Your task to perform on an android device: install app "Calculator" Image 0: 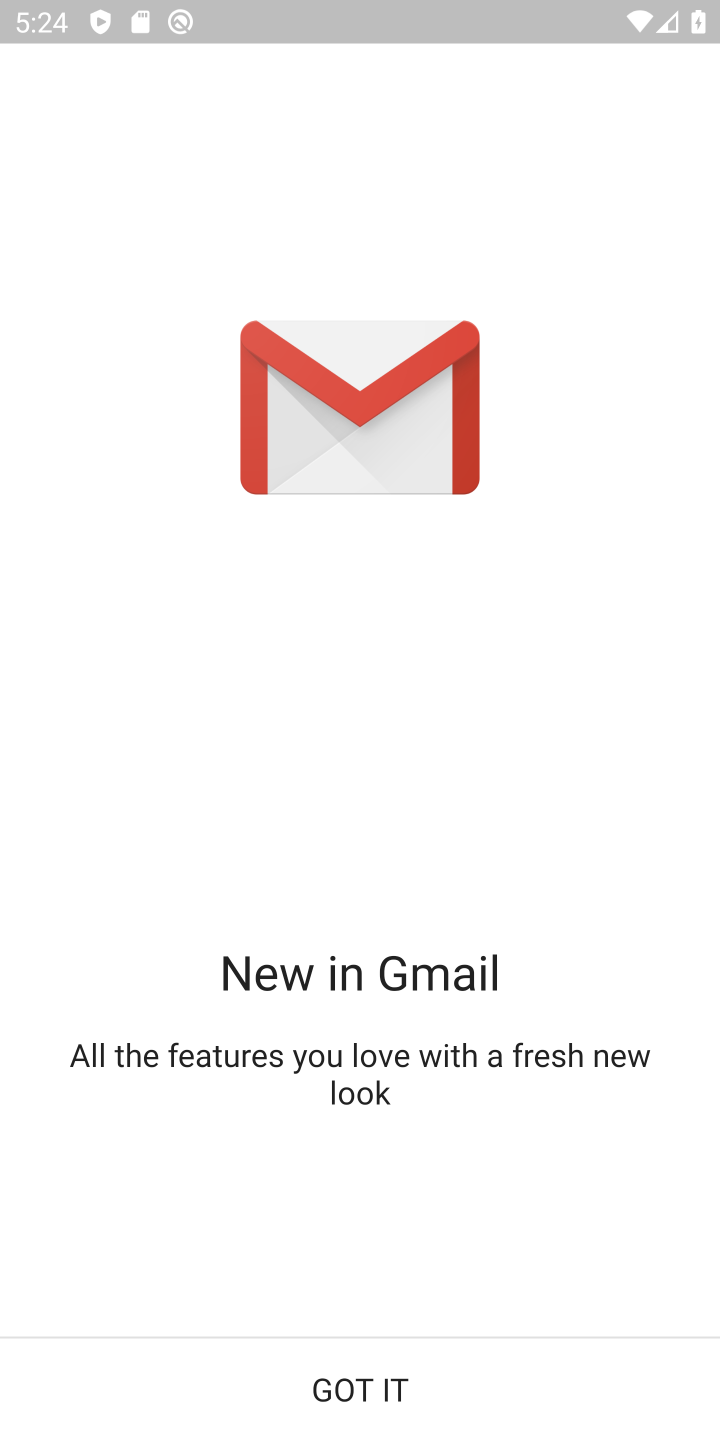
Step 0: press home button
Your task to perform on an android device: install app "Calculator" Image 1: 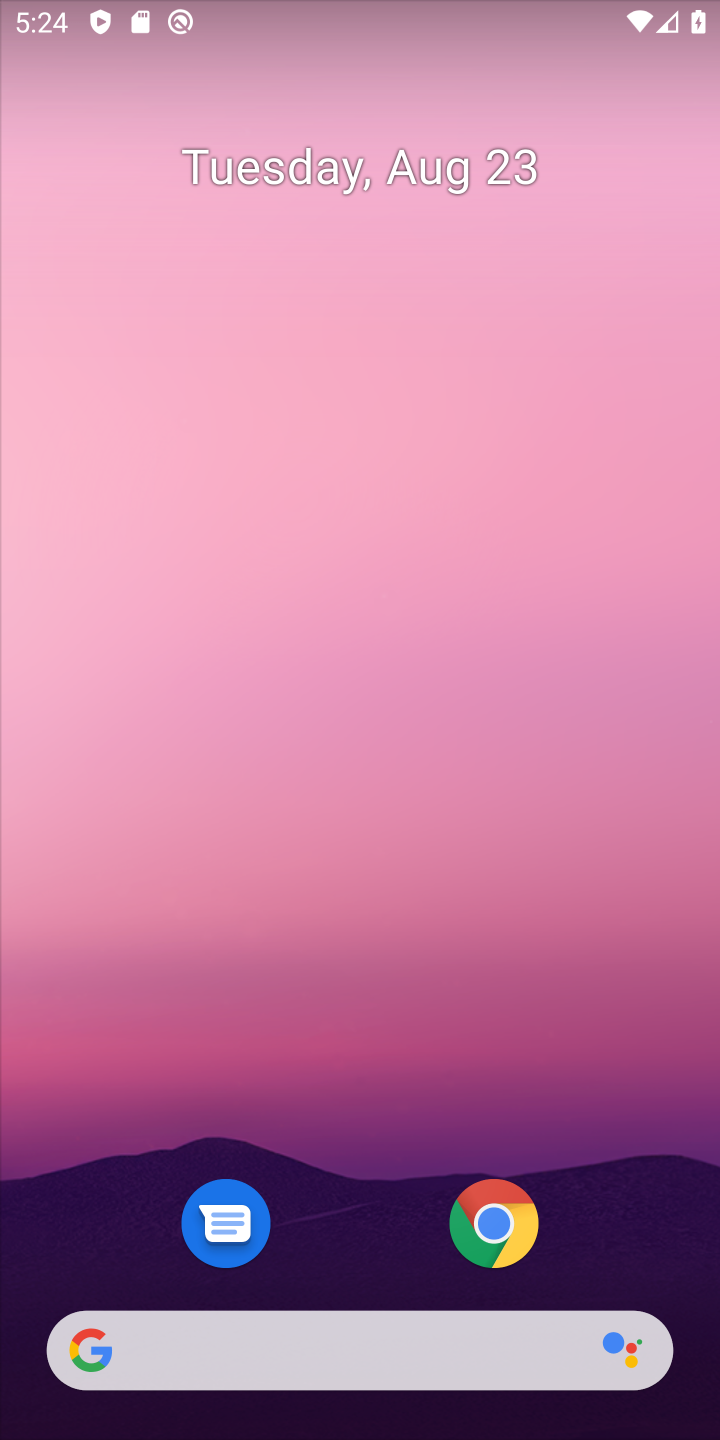
Step 1: drag from (392, 1346) to (443, 176)
Your task to perform on an android device: install app "Calculator" Image 2: 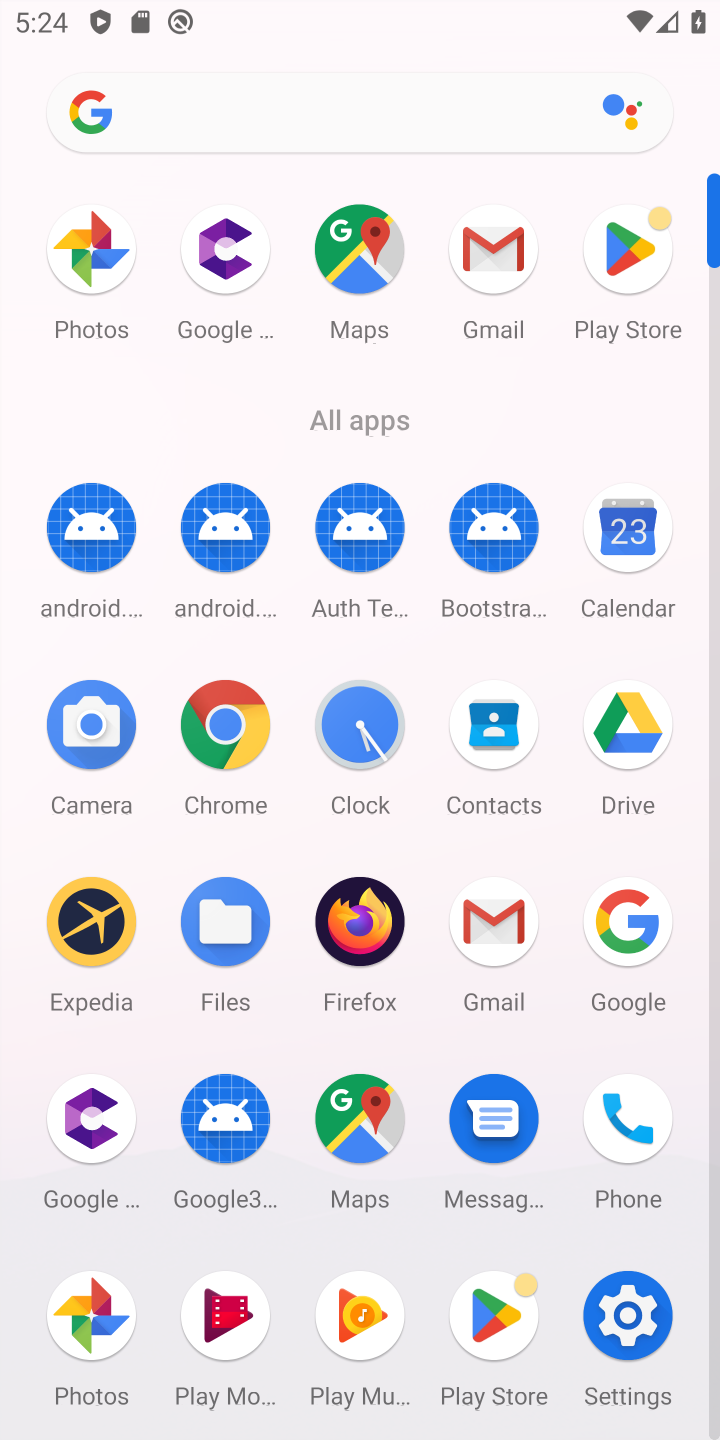
Step 2: click (587, 249)
Your task to perform on an android device: install app "Calculator" Image 3: 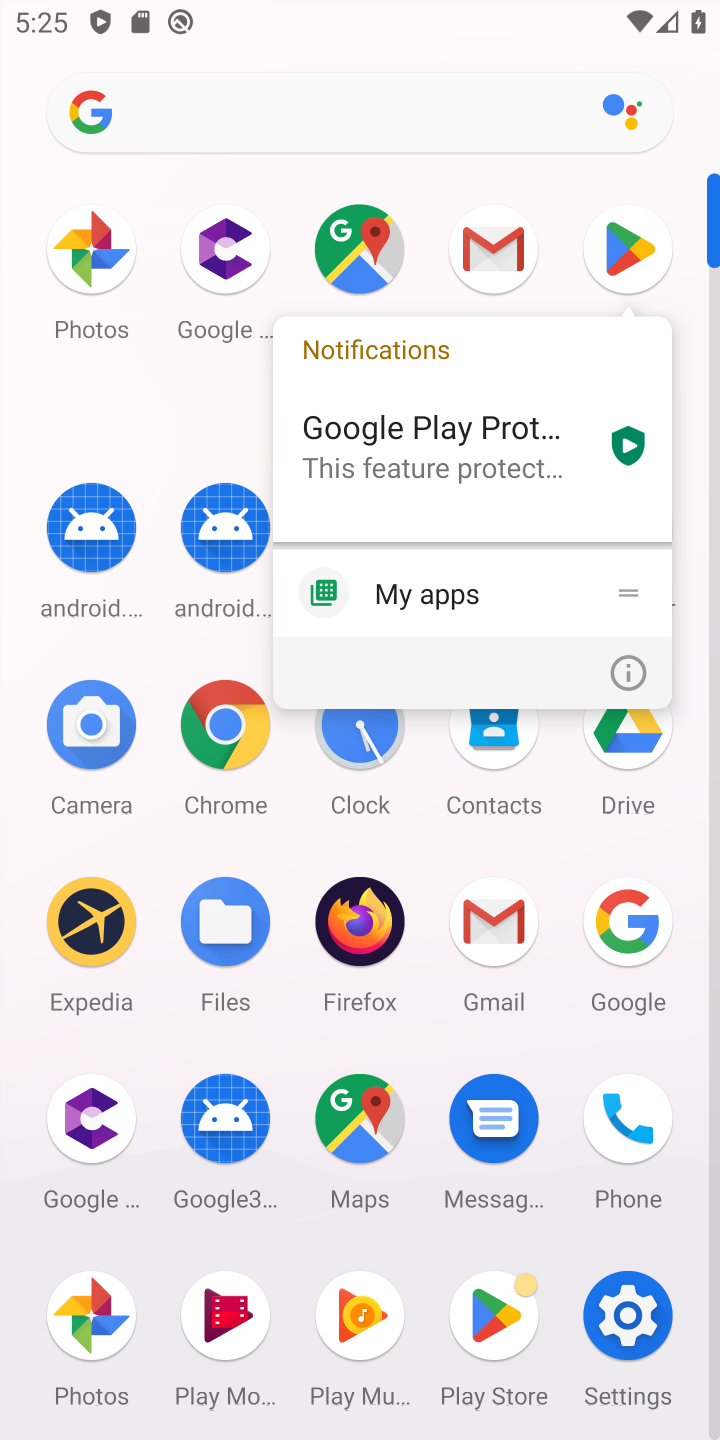
Step 3: click (603, 229)
Your task to perform on an android device: install app "Calculator" Image 4: 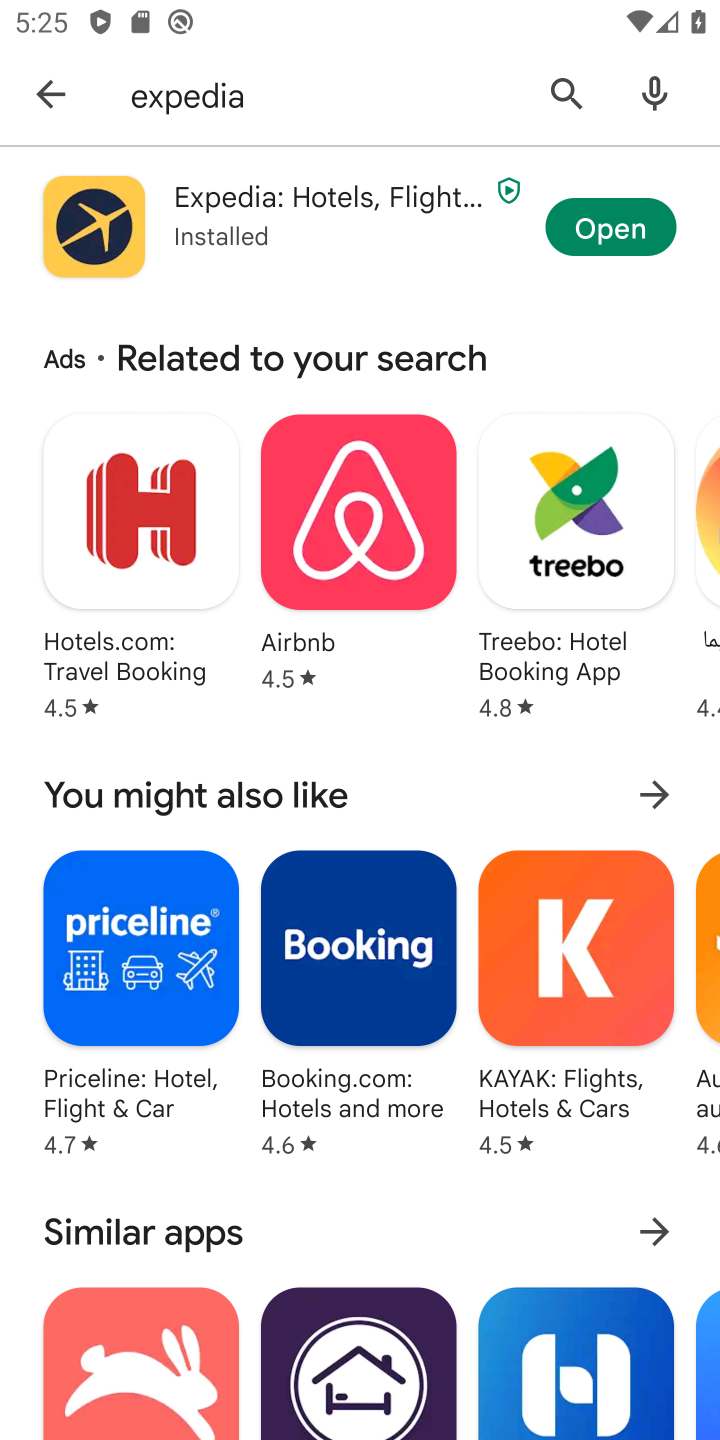
Step 4: click (579, 115)
Your task to perform on an android device: install app "Calculator" Image 5: 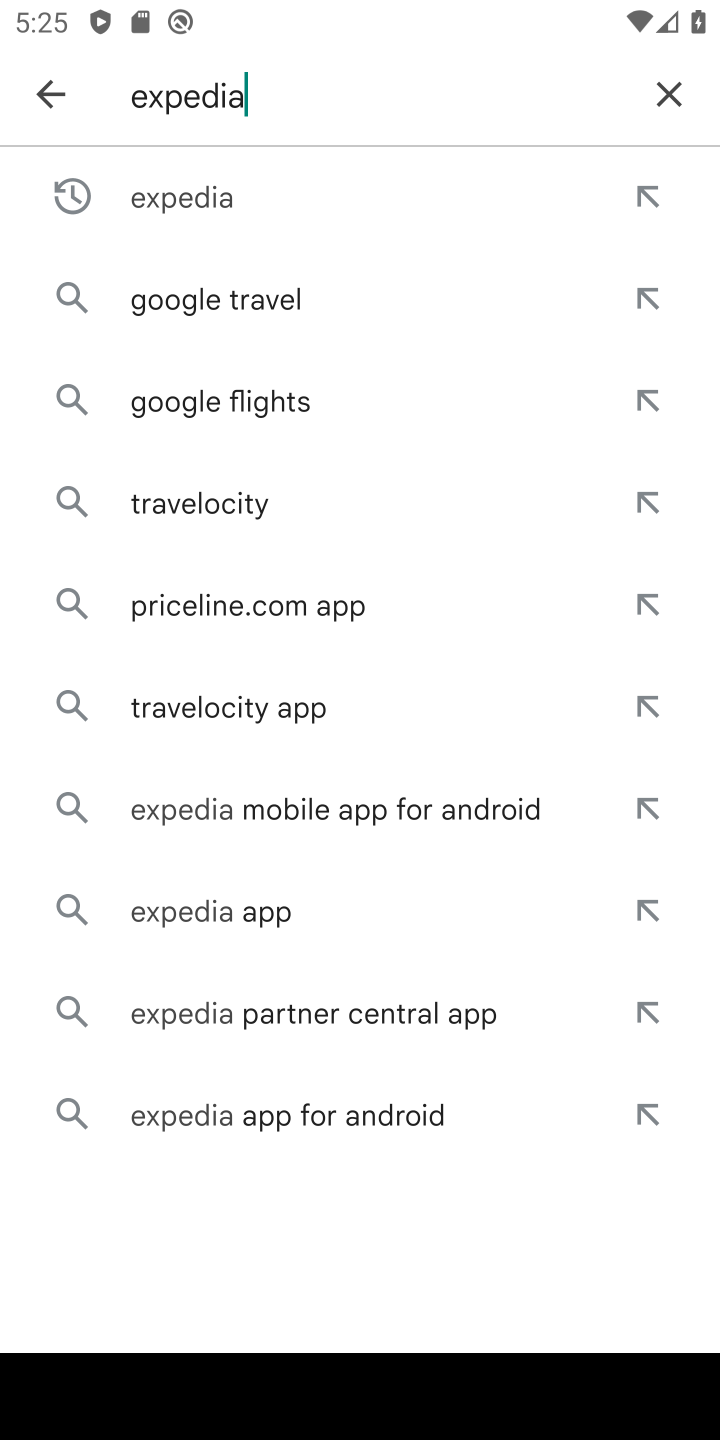
Step 5: click (660, 96)
Your task to perform on an android device: install app "Calculator" Image 6: 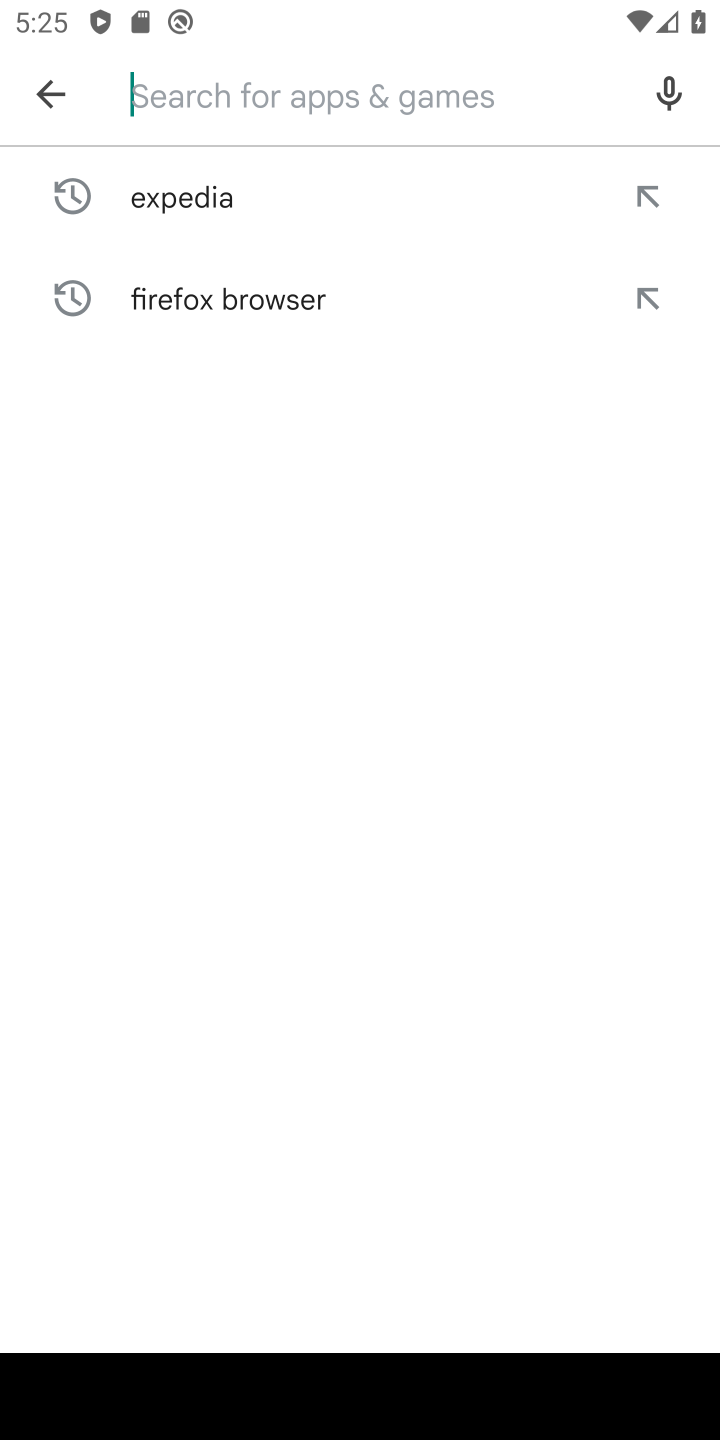
Step 6: type "calculator"
Your task to perform on an android device: install app "Calculator" Image 7: 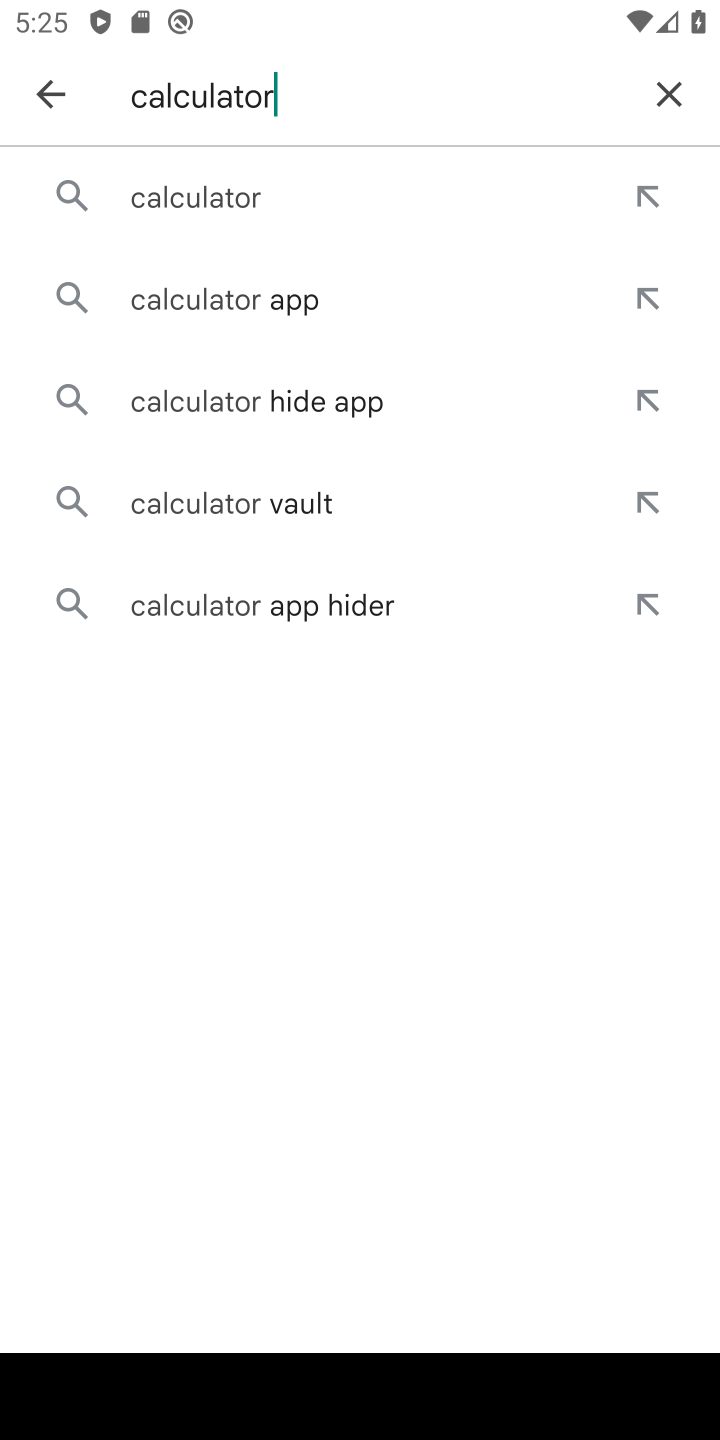
Step 7: click (196, 182)
Your task to perform on an android device: install app "Calculator" Image 8: 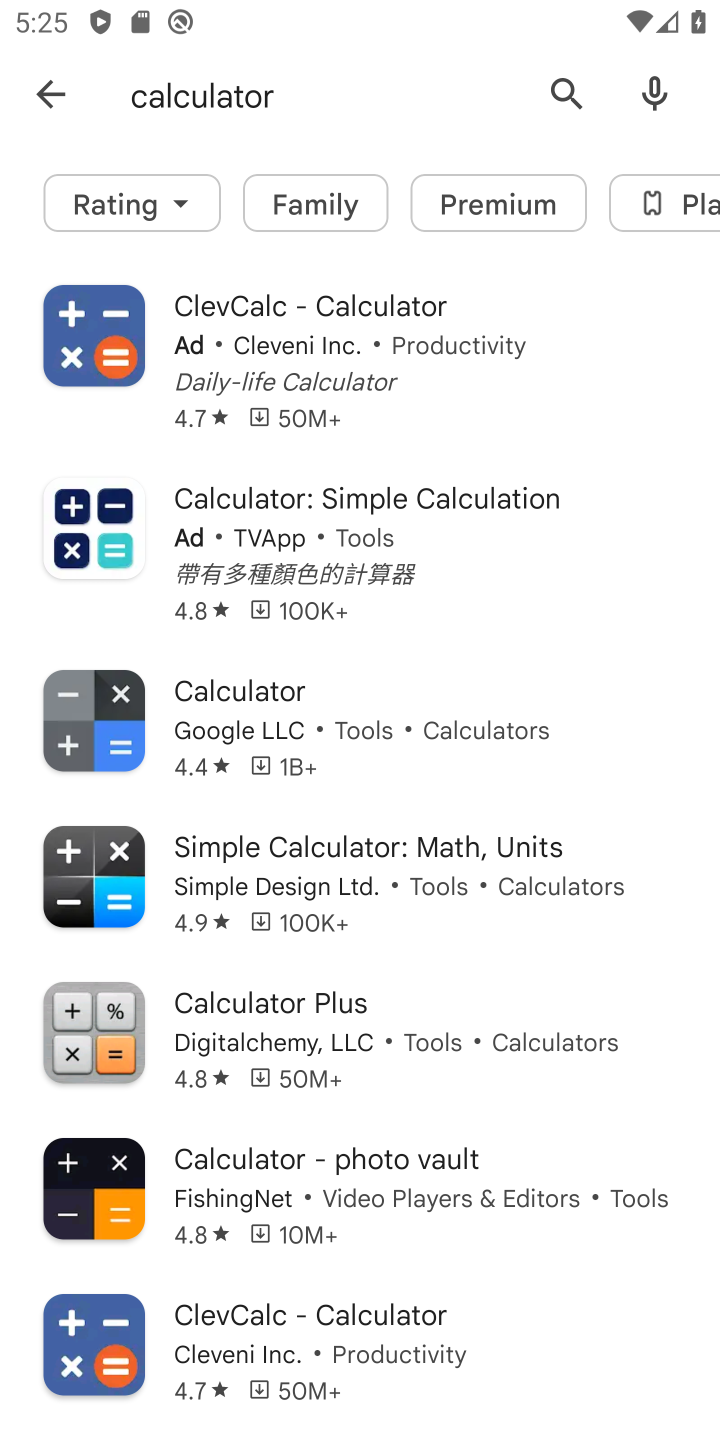
Step 8: click (389, 713)
Your task to perform on an android device: install app "Calculator" Image 9: 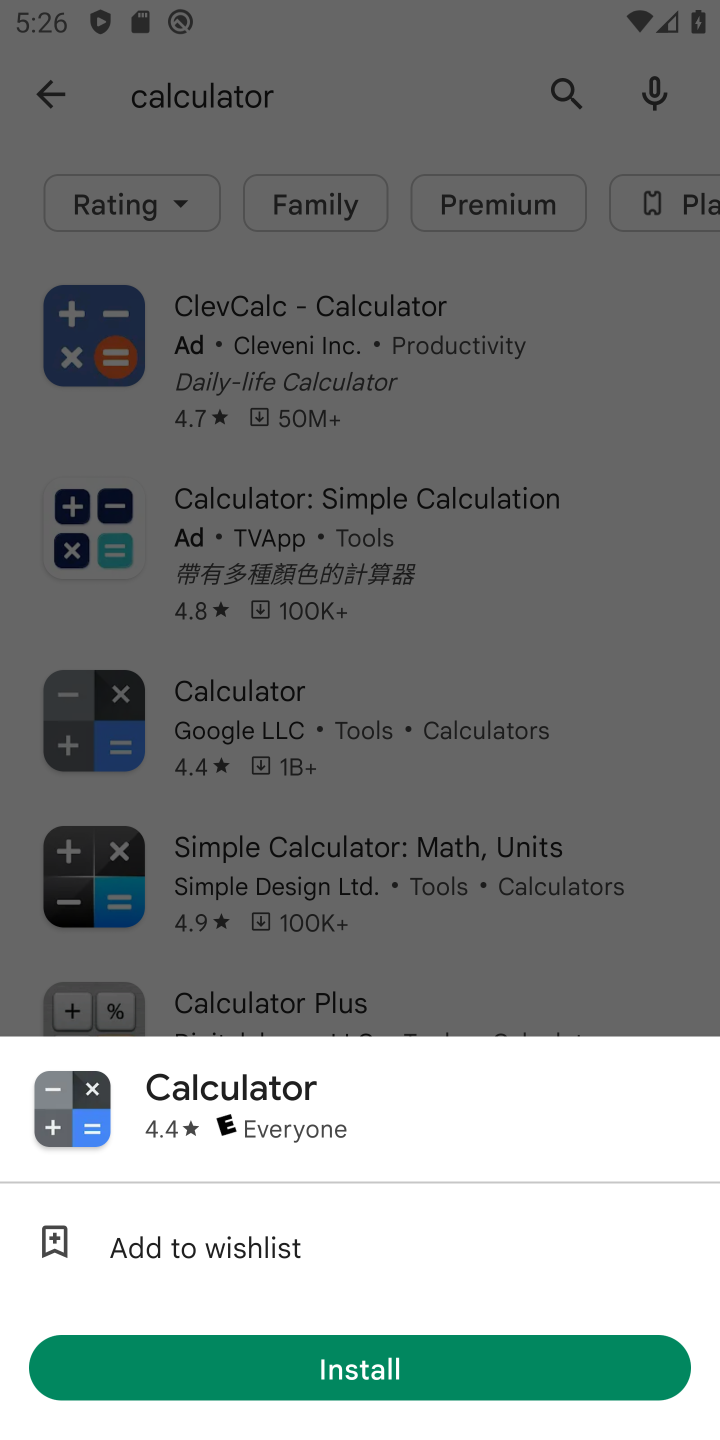
Step 9: click (343, 1363)
Your task to perform on an android device: install app "Calculator" Image 10: 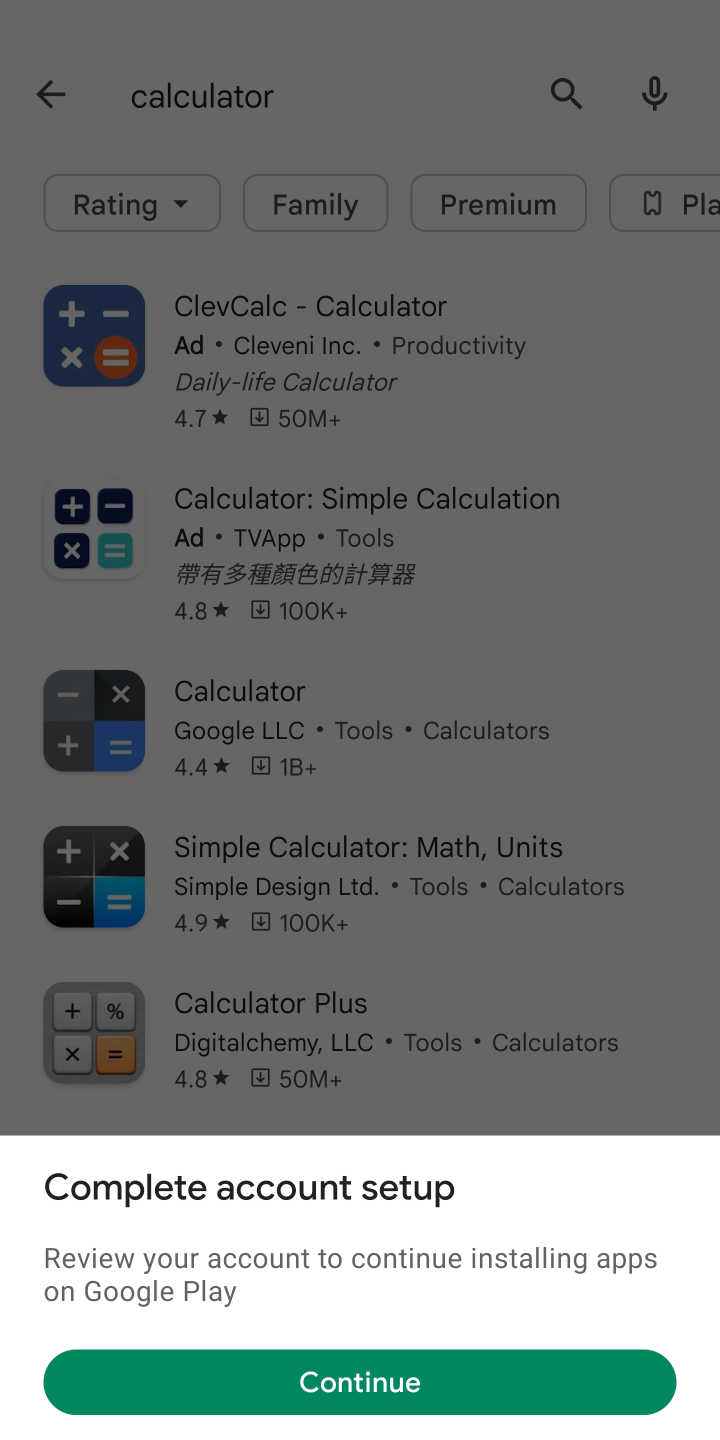
Step 10: click (389, 1393)
Your task to perform on an android device: install app "Calculator" Image 11: 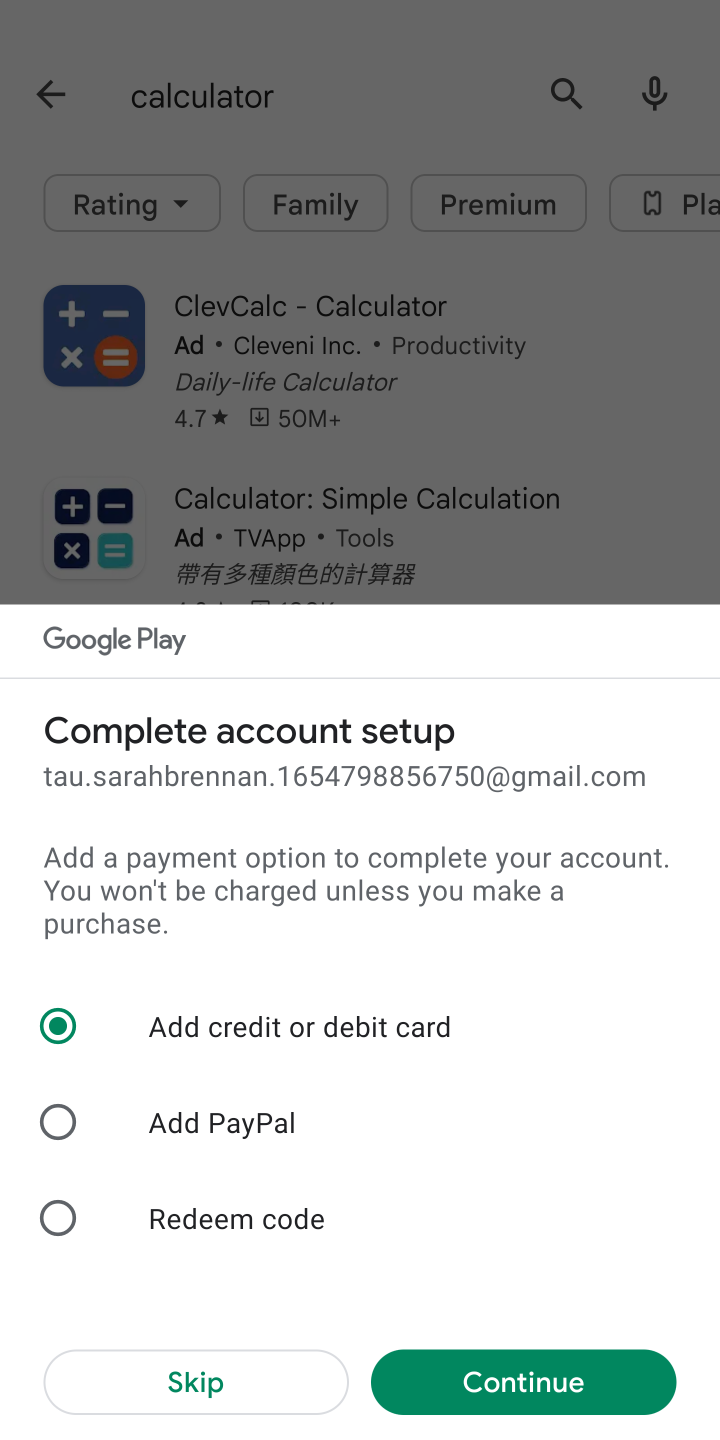
Step 11: click (198, 1379)
Your task to perform on an android device: install app "Calculator" Image 12: 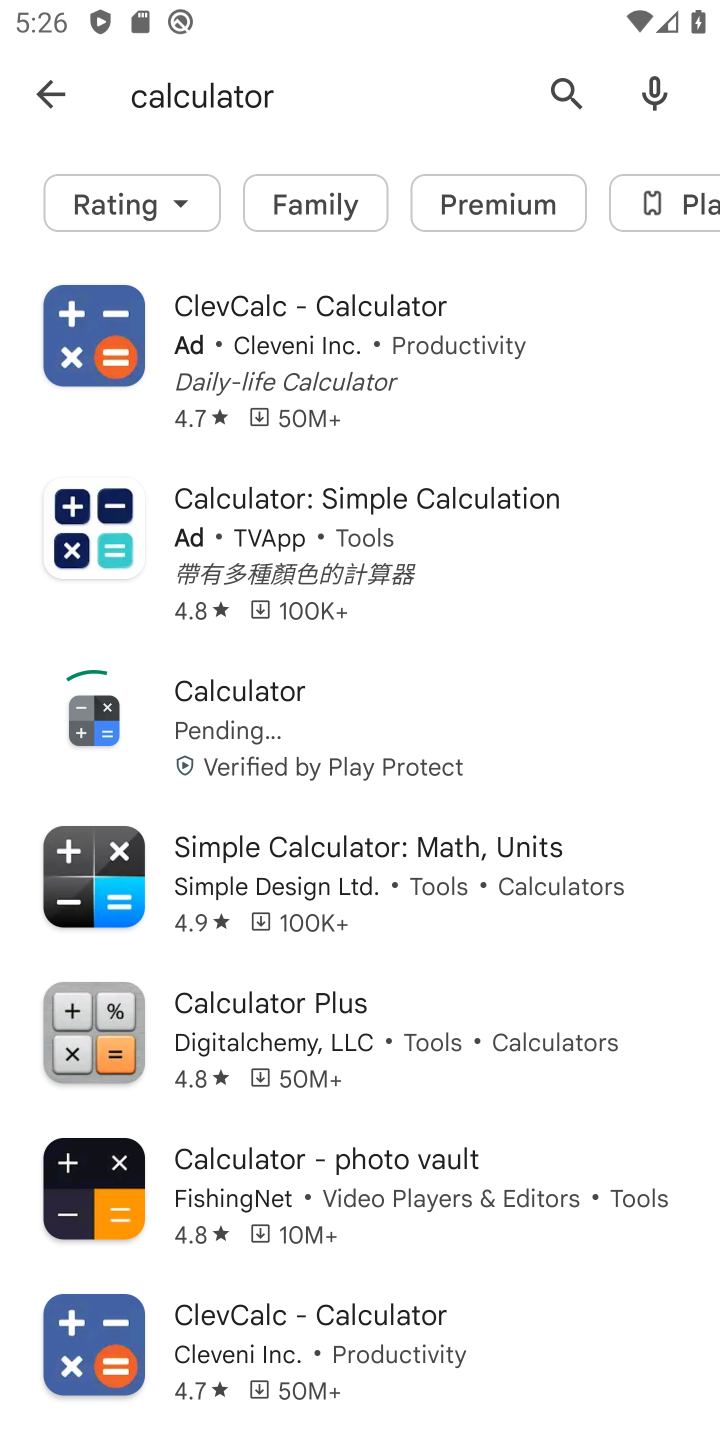
Step 12: click (318, 738)
Your task to perform on an android device: install app "Calculator" Image 13: 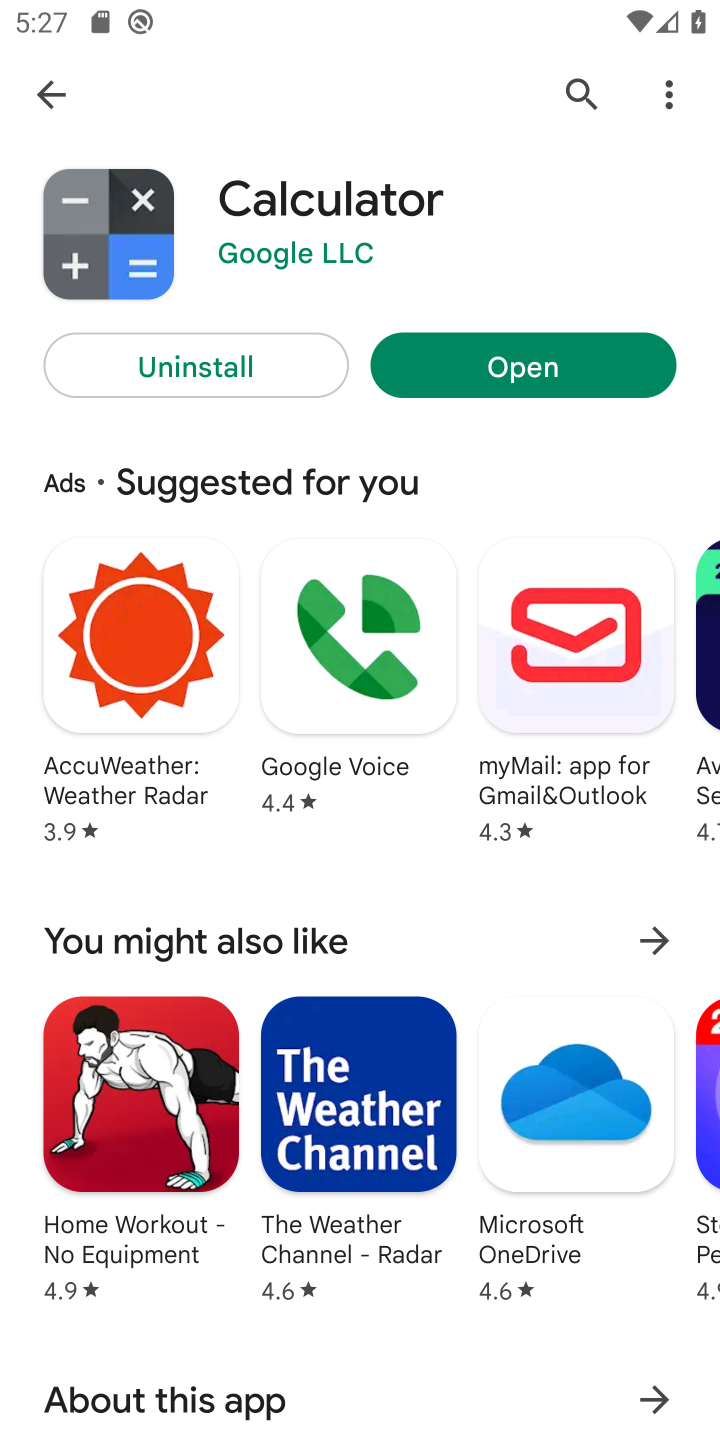
Step 13: task complete